Your task to perform on an android device: open device folders in google photos Image 0: 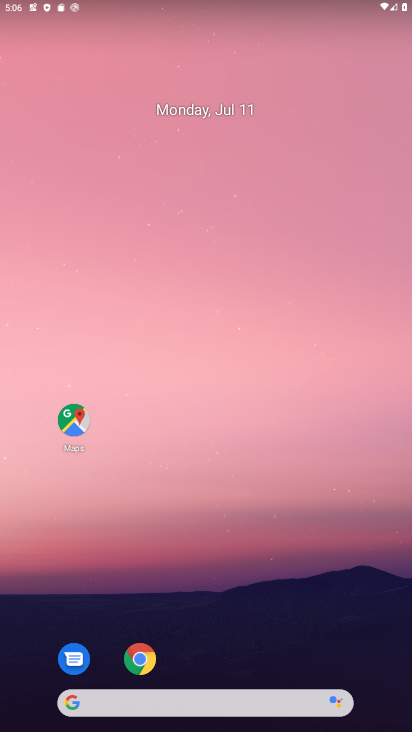
Step 0: drag from (384, 682) to (365, 91)
Your task to perform on an android device: open device folders in google photos Image 1: 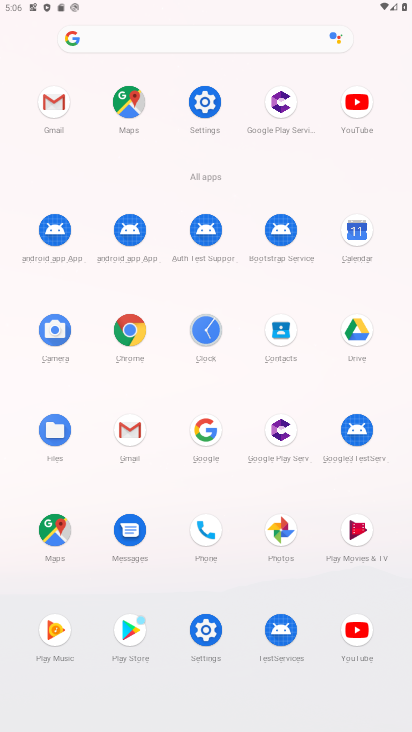
Step 1: click (277, 530)
Your task to perform on an android device: open device folders in google photos Image 2: 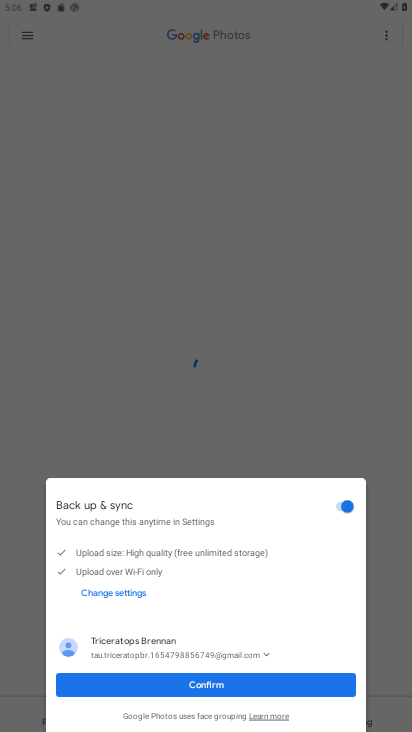
Step 2: click (209, 684)
Your task to perform on an android device: open device folders in google photos Image 3: 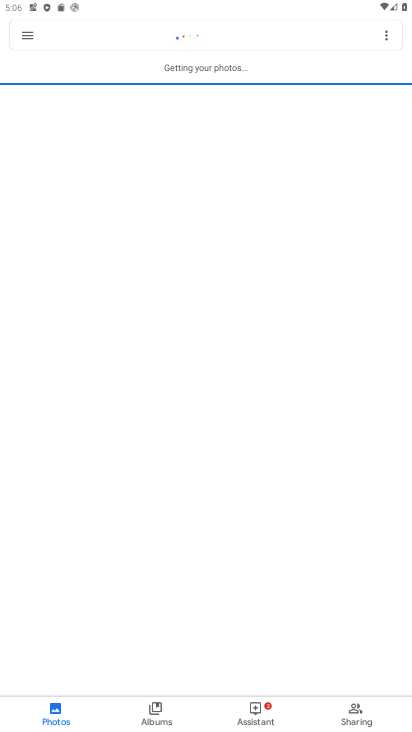
Step 3: click (27, 38)
Your task to perform on an android device: open device folders in google photos Image 4: 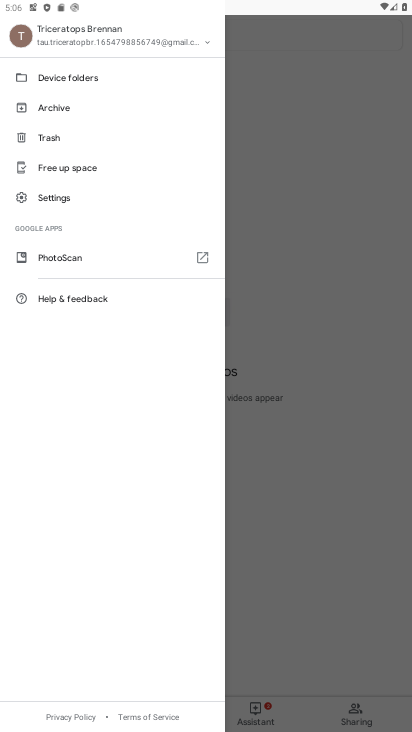
Step 4: click (72, 77)
Your task to perform on an android device: open device folders in google photos Image 5: 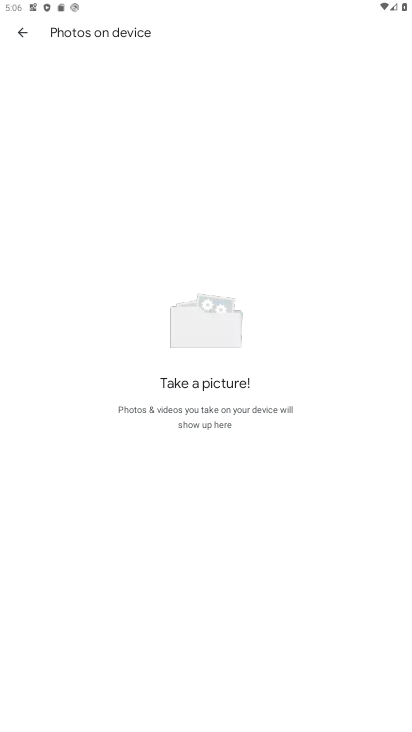
Step 5: task complete